Your task to perform on an android device: Open the Play Movies app and select the watchlist tab. Image 0: 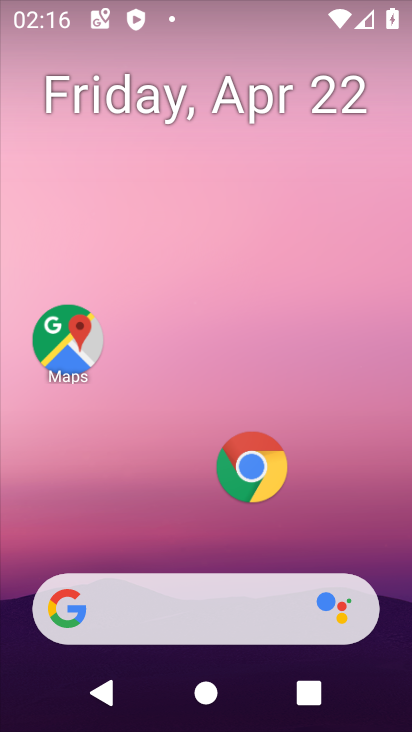
Step 0: drag from (296, 555) to (346, 41)
Your task to perform on an android device: Open the Play Movies app and select the watchlist tab. Image 1: 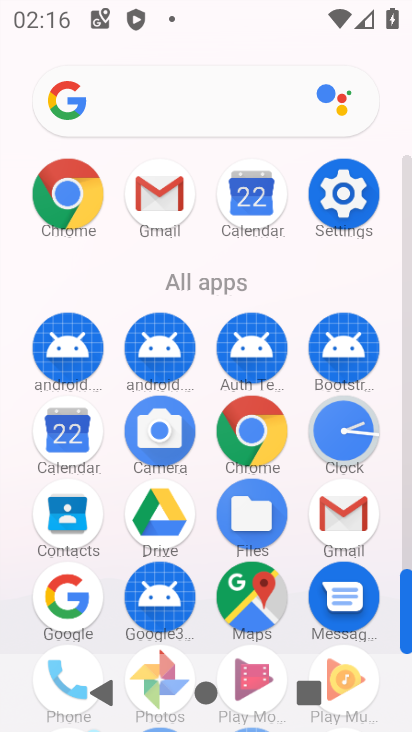
Step 1: drag from (220, 621) to (273, 333)
Your task to perform on an android device: Open the Play Movies app and select the watchlist tab. Image 2: 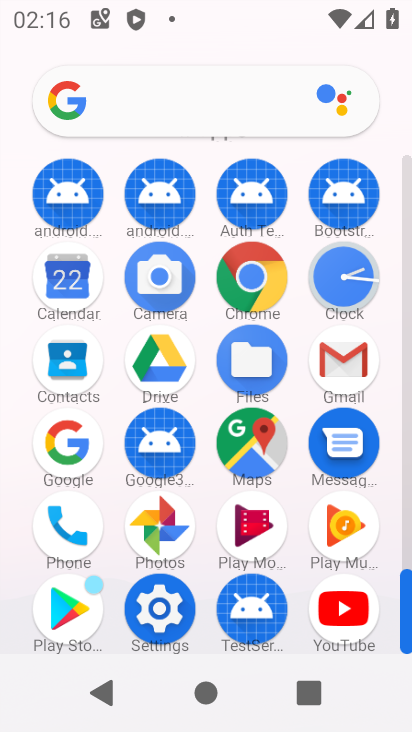
Step 2: click (230, 539)
Your task to perform on an android device: Open the Play Movies app and select the watchlist tab. Image 3: 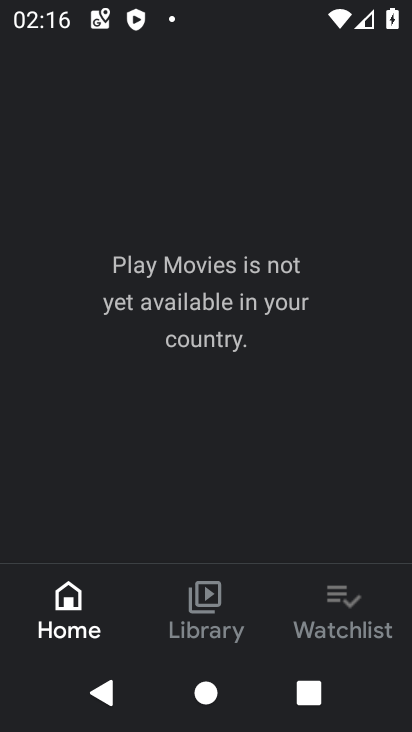
Step 3: click (332, 605)
Your task to perform on an android device: Open the Play Movies app and select the watchlist tab. Image 4: 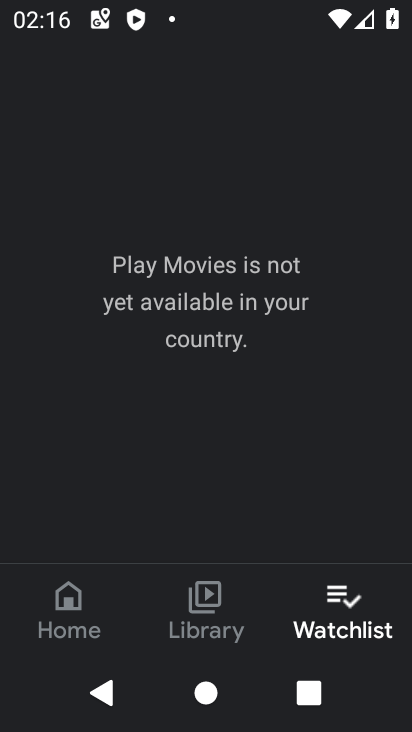
Step 4: task complete